Your task to perform on an android device: Open Maps and search for coffee Image 0: 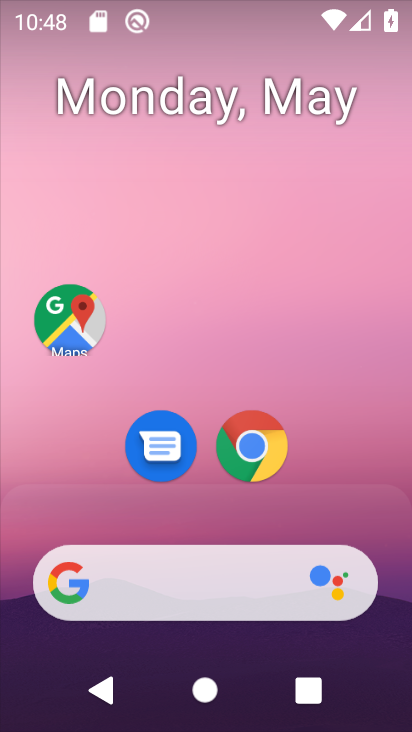
Step 0: click (58, 321)
Your task to perform on an android device: Open Maps and search for coffee Image 1: 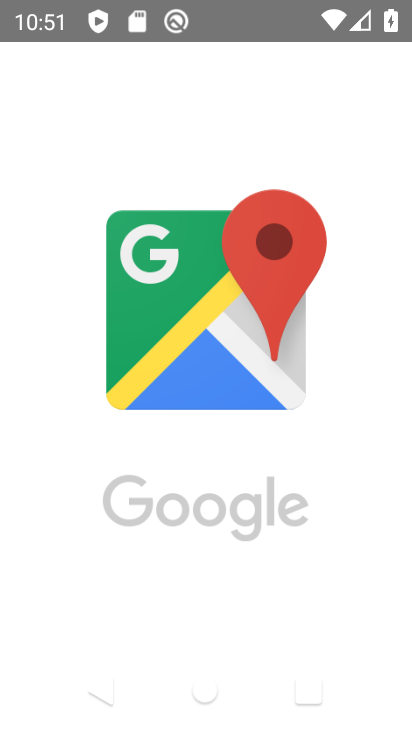
Step 1: task complete